Your task to perform on an android device: find which apps use the phone's location Image 0: 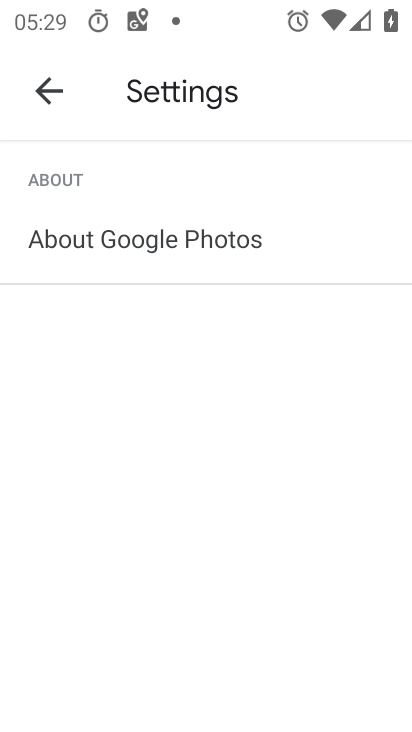
Step 0: press home button
Your task to perform on an android device: find which apps use the phone's location Image 1: 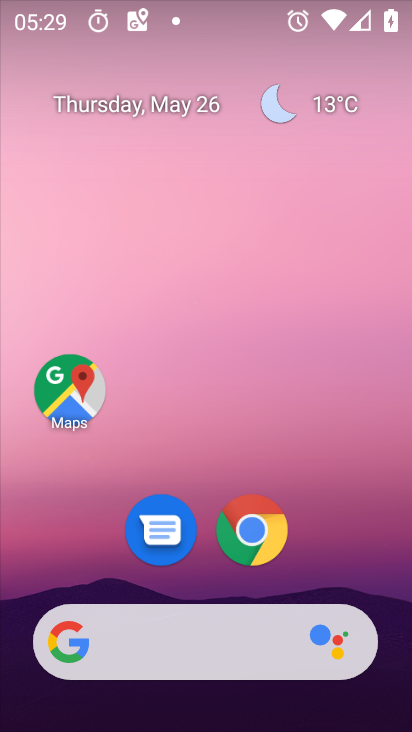
Step 1: drag from (288, 611) to (324, 2)
Your task to perform on an android device: find which apps use the phone's location Image 2: 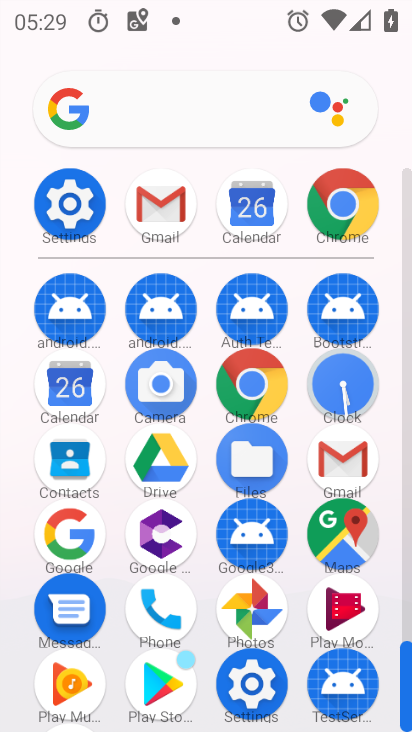
Step 2: click (69, 216)
Your task to perform on an android device: find which apps use the phone's location Image 3: 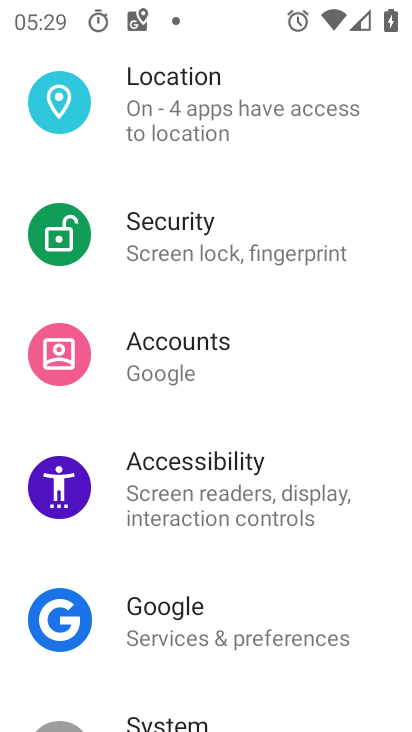
Step 3: click (248, 93)
Your task to perform on an android device: find which apps use the phone's location Image 4: 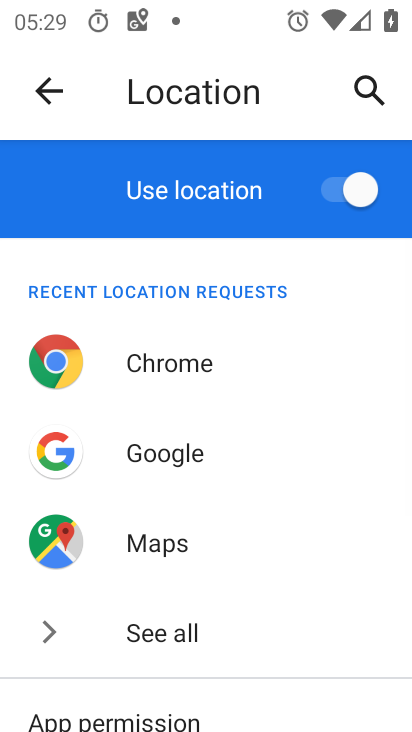
Step 4: drag from (279, 571) to (282, 174)
Your task to perform on an android device: find which apps use the phone's location Image 5: 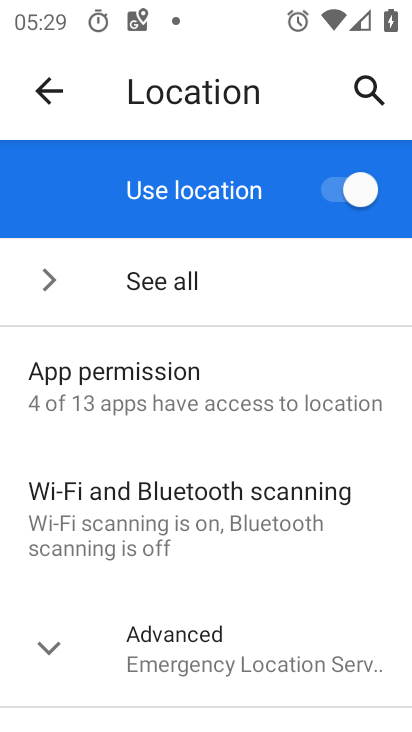
Step 5: click (209, 386)
Your task to perform on an android device: find which apps use the phone's location Image 6: 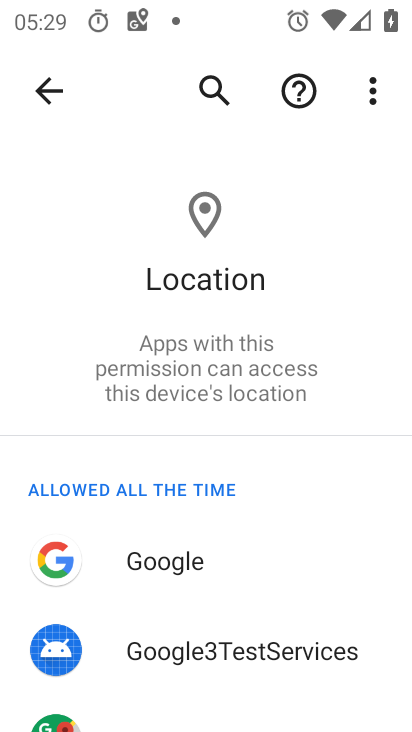
Step 6: task complete